Your task to perform on an android device: change the upload size in google photos Image 0: 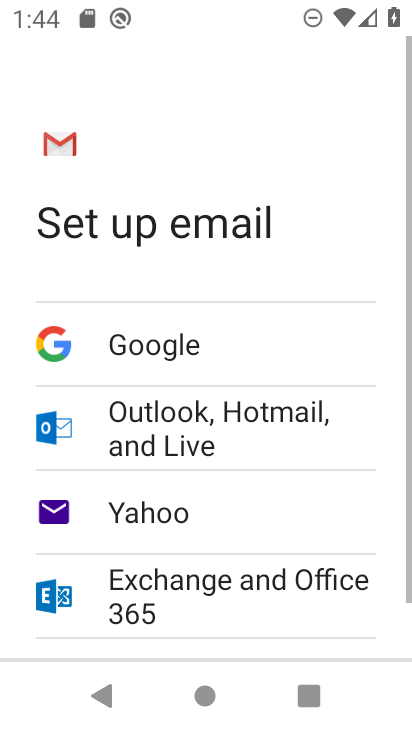
Step 0: press home button
Your task to perform on an android device: change the upload size in google photos Image 1: 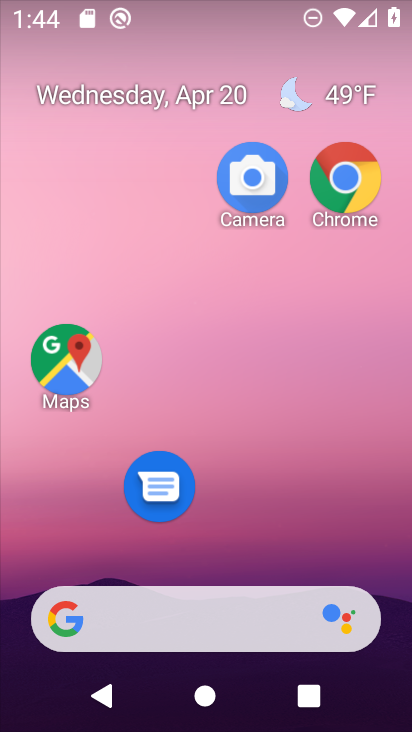
Step 1: drag from (278, 645) to (294, 137)
Your task to perform on an android device: change the upload size in google photos Image 2: 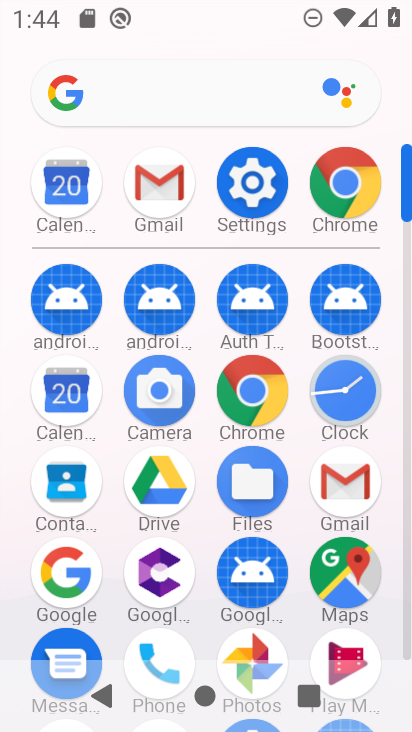
Step 2: drag from (200, 525) to (227, 279)
Your task to perform on an android device: change the upload size in google photos Image 3: 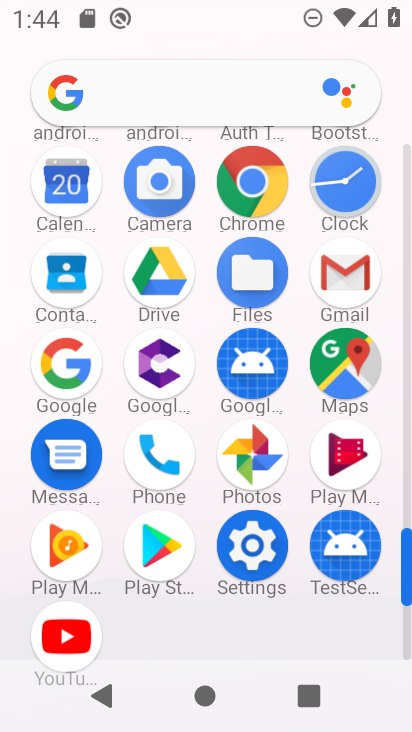
Step 3: click (250, 458)
Your task to perform on an android device: change the upload size in google photos Image 4: 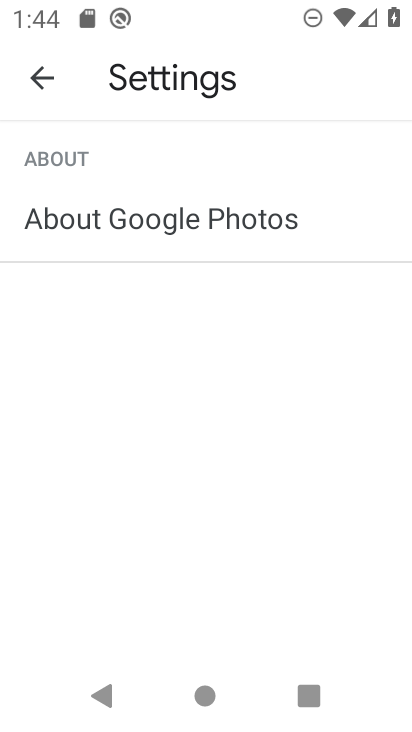
Step 4: click (42, 78)
Your task to perform on an android device: change the upload size in google photos Image 5: 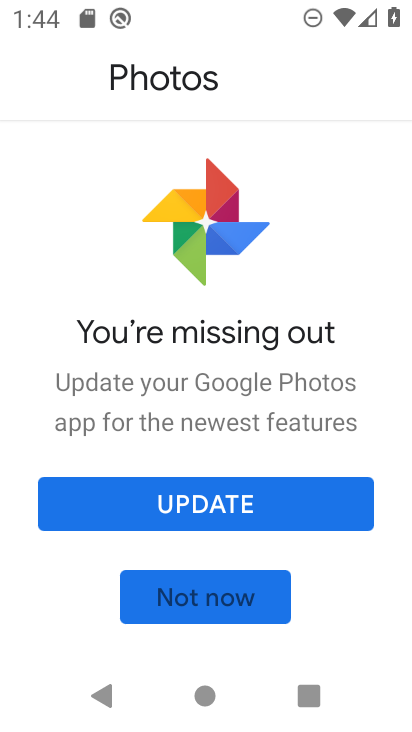
Step 5: click (238, 497)
Your task to perform on an android device: change the upload size in google photos Image 6: 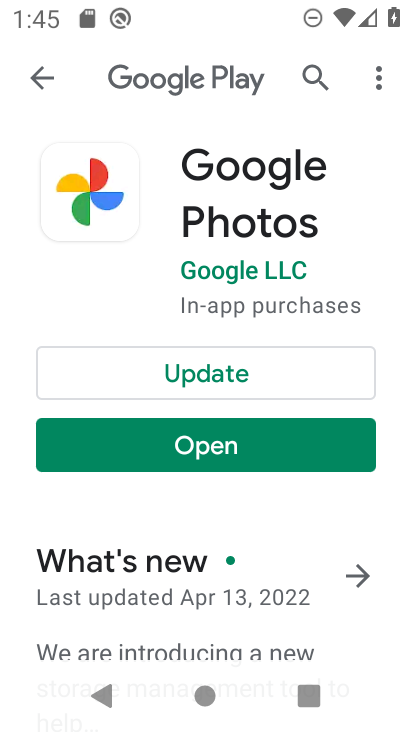
Step 6: click (191, 375)
Your task to perform on an android device: change the upload size in google photos Image 7: 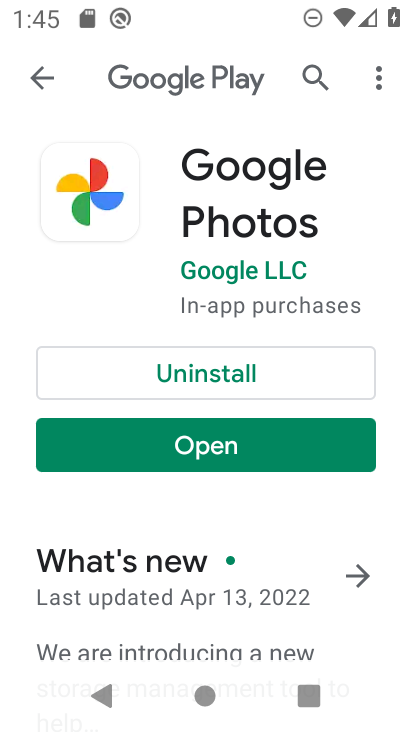
Step 7: click (249, 435)
Your task to perform on an android device: change the upload size in google photos Image 8: 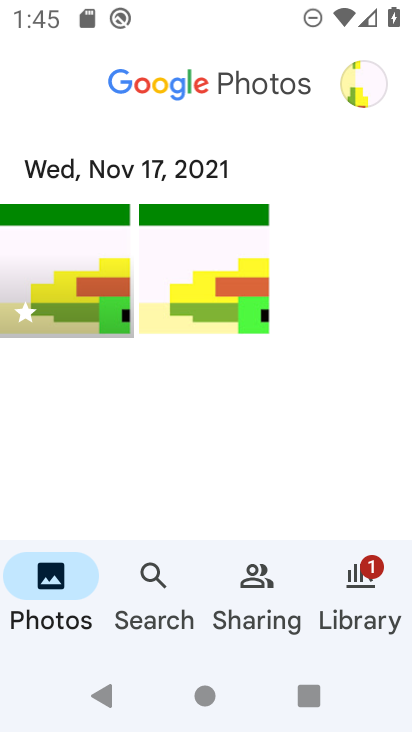
Step 8: click (364, 94)
Your task to perform on an android device: change the upload size in google photos Image 9: 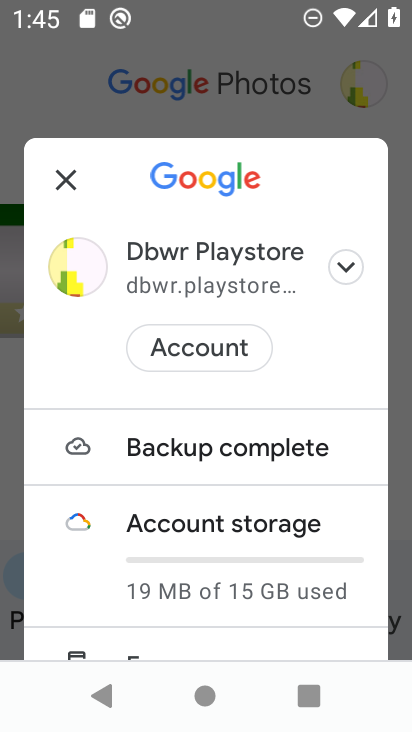
Step 9: drag from (207, 579) to (225, 393)
Your task to perform on an android device: change the upload size in google photos Image 10: 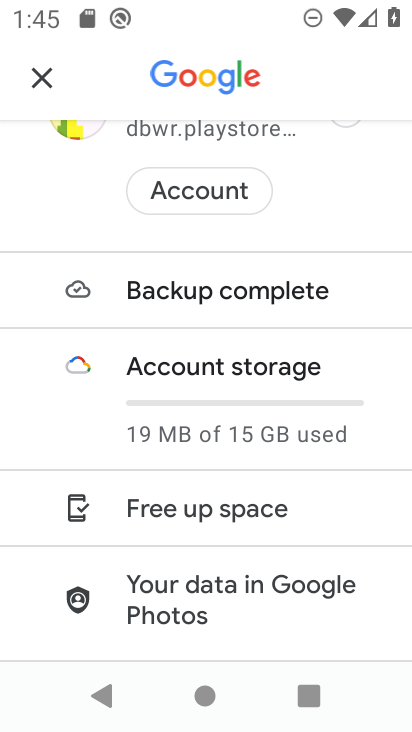
Step 10: drag from (199, 530) to (222, 351)
Your task to perform on an android device: change the upload size in google photos Image 11: 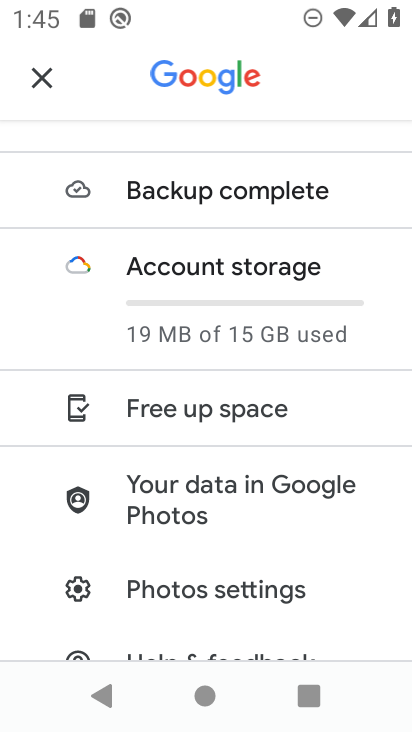
Step 11: click (184, 583)
Your task to perform on an android device: change the upload size in google photos Image 12: 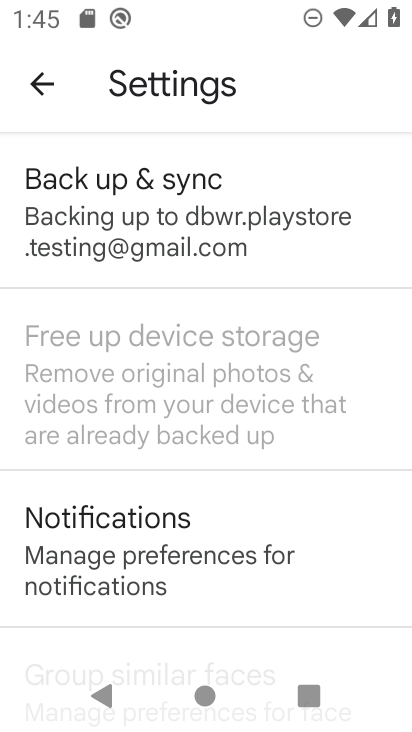
Step 12: click (205, 221)
Your task to perform on an android device: change the upload size in google photos Image 13: 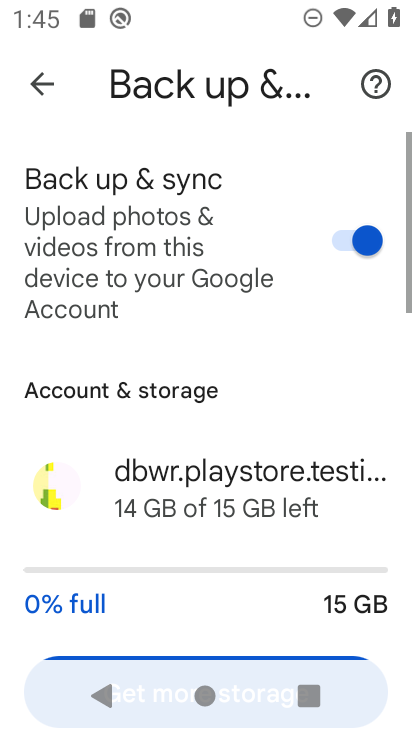
Step 13: drag from (225, 528) to (197, 279)
Your task to perform on an android device: change the upload size in google photos Image 14: 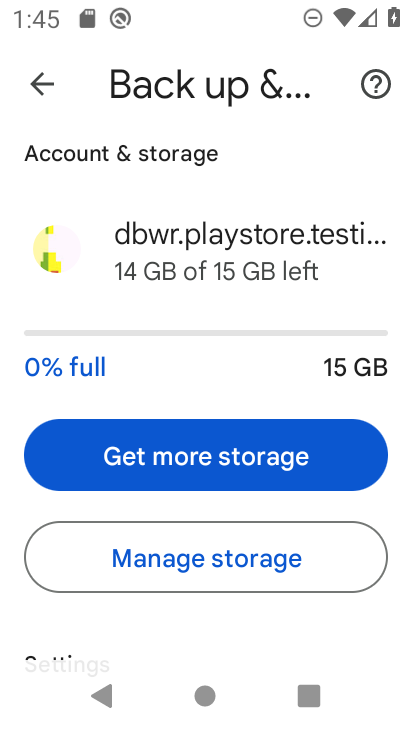
Step 14: drag from (188, 591) to (236, 276)
Your task to perform on an android device: change the upload size in google photos Image 15: 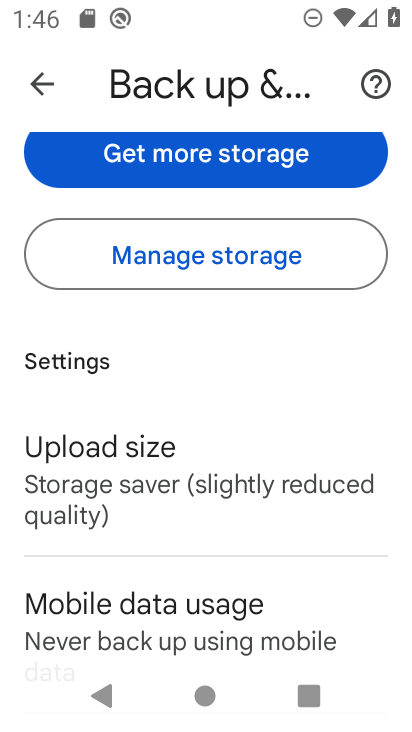
Step 15: click (129, 478)
Your task to perform on an android device: change the upload size in google photos Image 16: 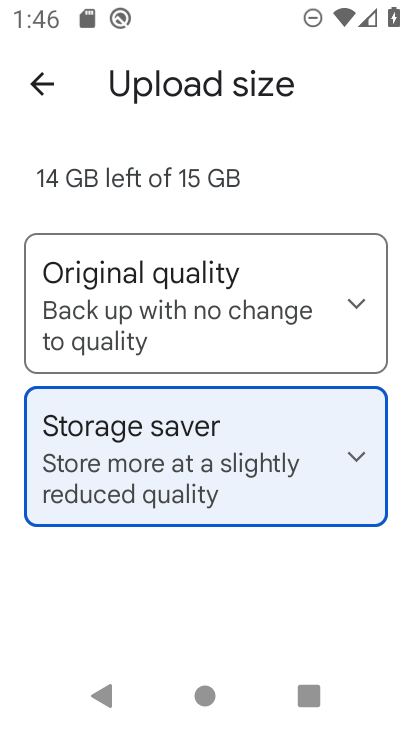
Step 16: task complete